Your task to perform on an android device: turn on translation in the chrome app Image 0: 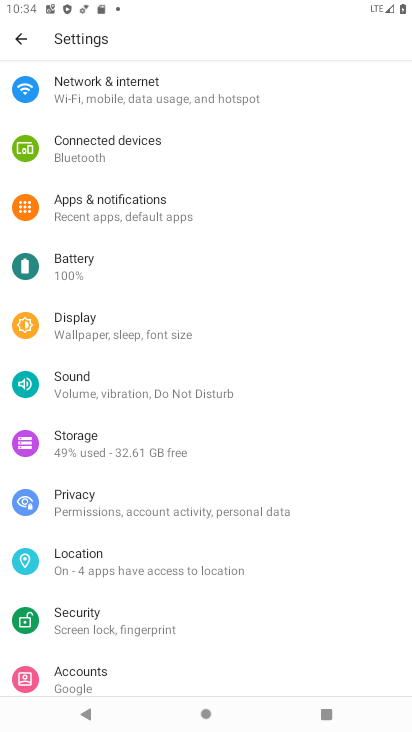
Step 0: press home button
Your task to perform on an android device: turn on translation in the chrome app Image 1: 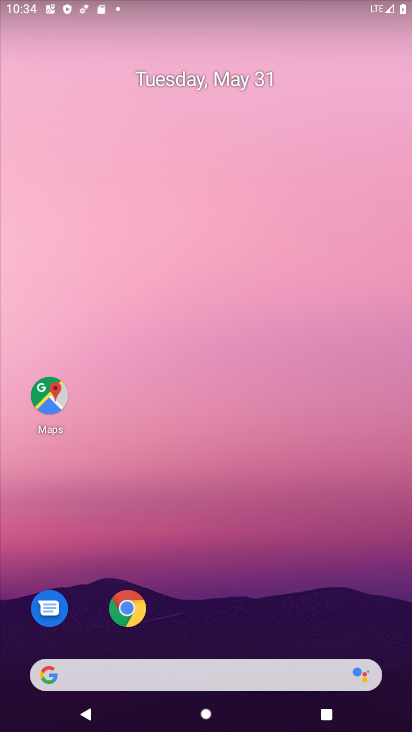
Step 1: click (115, 612)
Your task to perform on an android device: turn on translation in the chrome app Image 2: 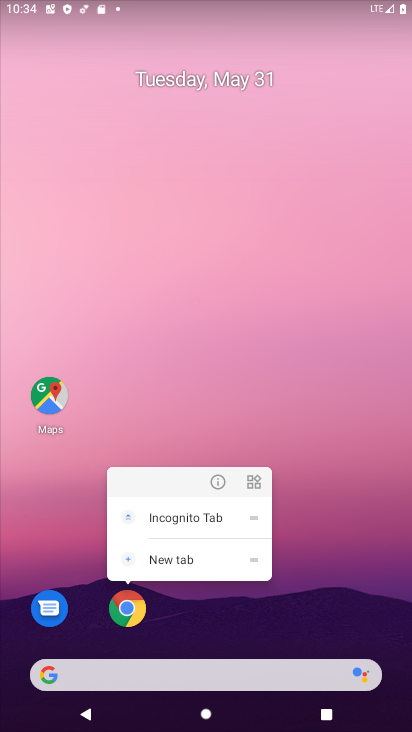
Step 2: click (129, 614)
Your task to perform on an android device: turn on translation in the chrome app Image 3: 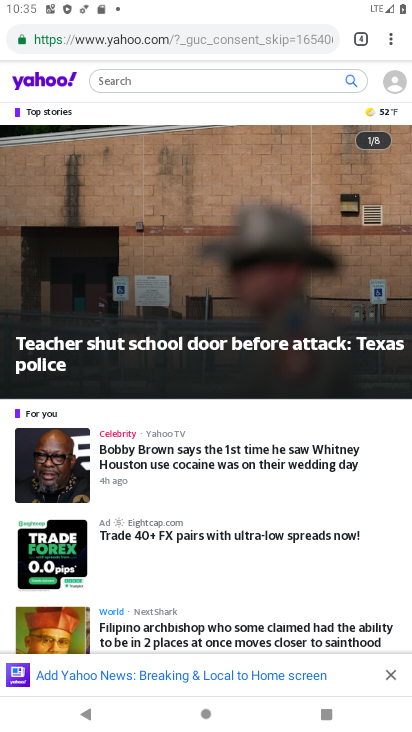
Step 3: click (392, 41)
Your task to perform on an android device: turn on translation in the chrome app Image 4: 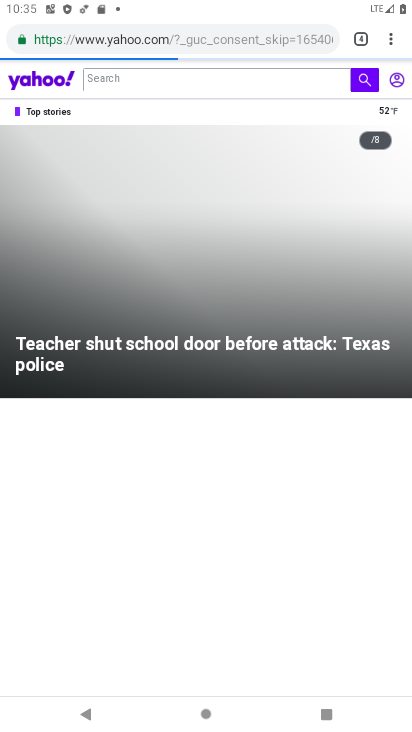
Step 4: drag from (395, 35) to (255, 517)
Your task to perform on an android device: turn on translation in the chrome app Image 5: 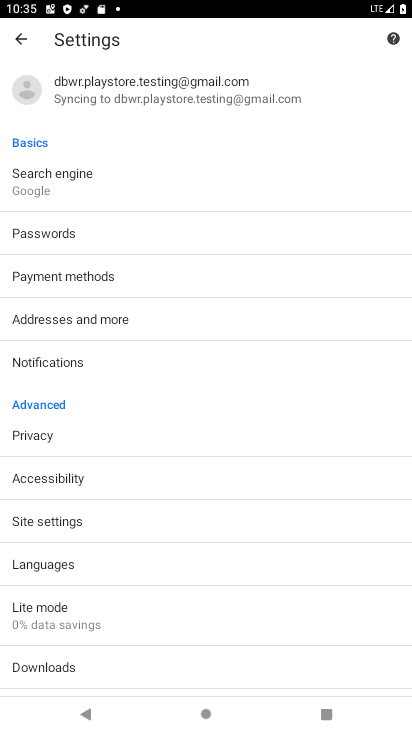
Step 5: click (151, 550)
Your task to perform on an android device: turn on translation in the chrome app Image 6: 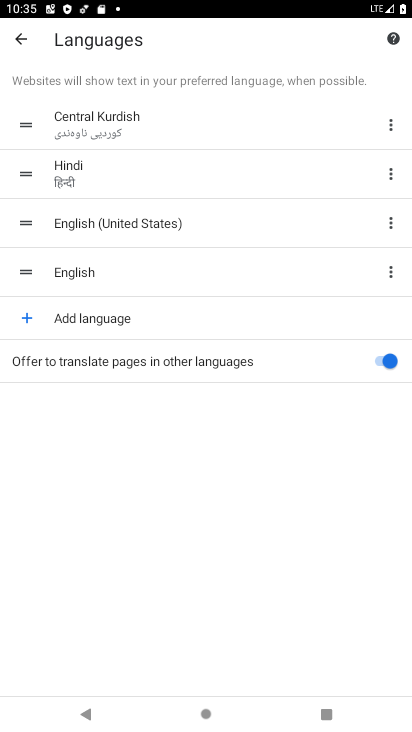
Step 6: task complete